Your task to perform on an android device: Open network settings Image 0: 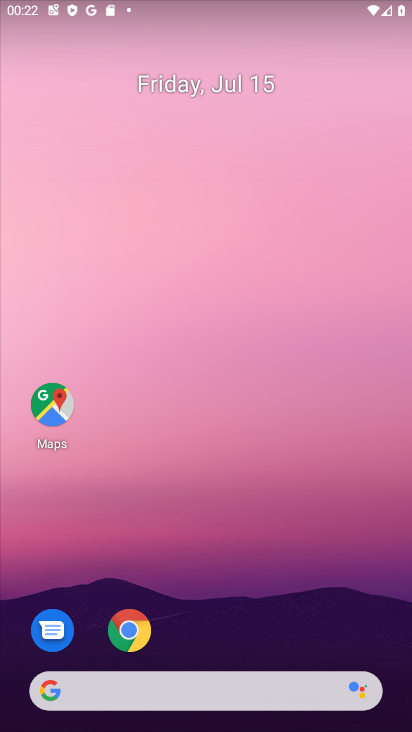
Step 0: drag from (285, 643) to (267, 343)
Your task to perform on an android device: Open network settings Image 1: 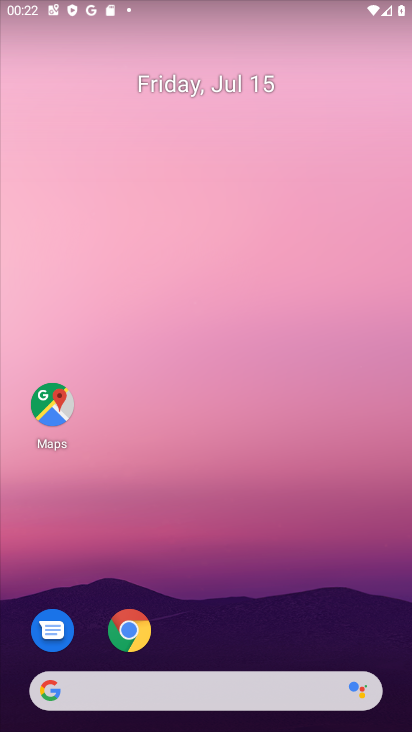
Step 1: drag from (249, 616) to (230, 51)
Your task to perform on an android device: Open network settings Image 2: 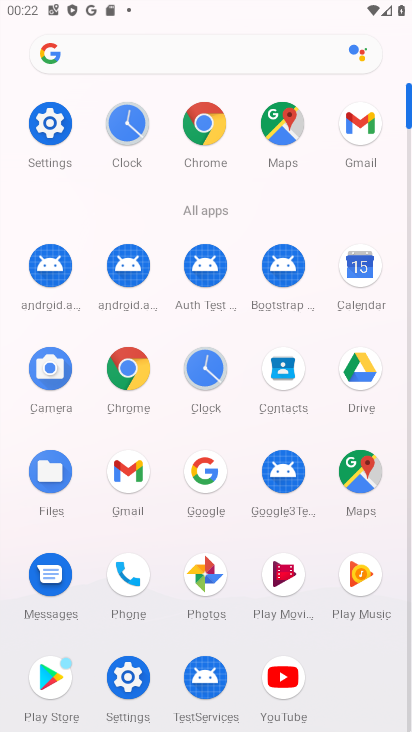
Step 2: click (54, 130)
Your task to perform on an android device: Open network settings Image 3: 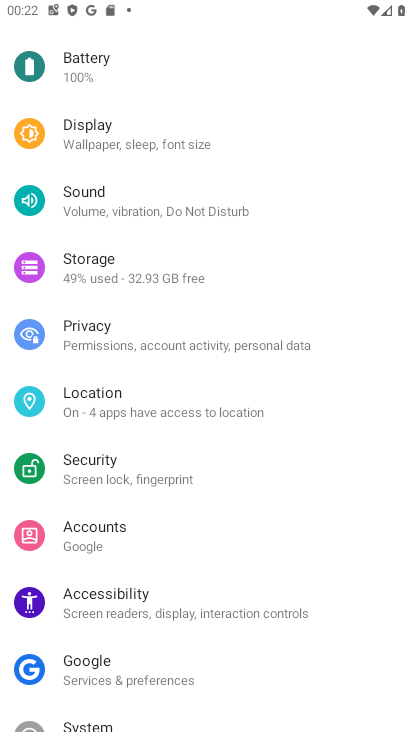
Step 3: drag from (140, 108) to (269, 498)
Your task to perform on an android device: Open network settings Image 4: 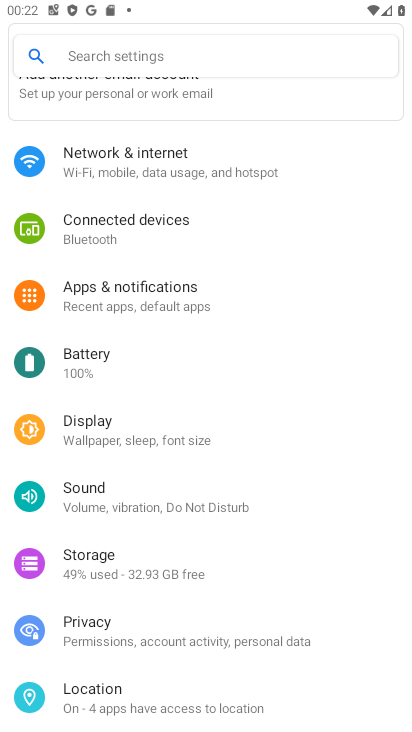
Step 4: click (233, 158)
Your task to perform on an android device: Open network settings Image 5: 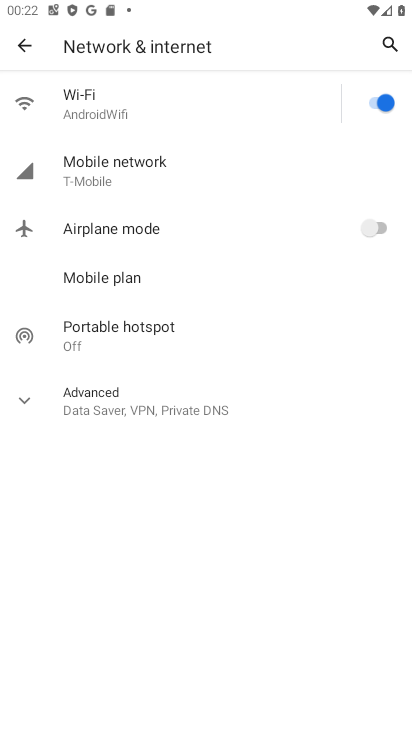
Step 5: task complete